Your task to perform on an android device: Open Youtube and go to the subscriptions tab Image 0: 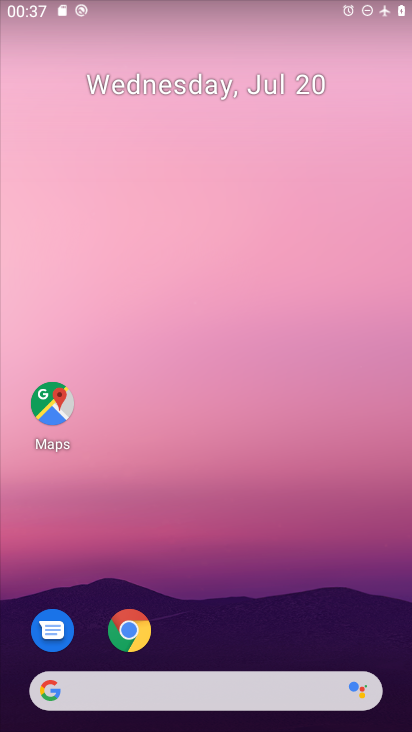
Step 0: drag from (199, 637) to (177, 146)
Your task to perform on an android device: Open Youtube and go to the subscriptions tab Image 1: 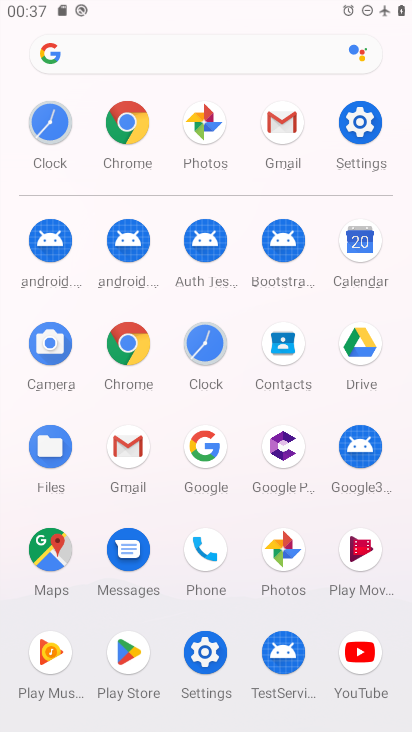
Step 1: click (346, 638)
Your task to perform on an android device: Open Youtube and go to the subscriptions tab Image 2: 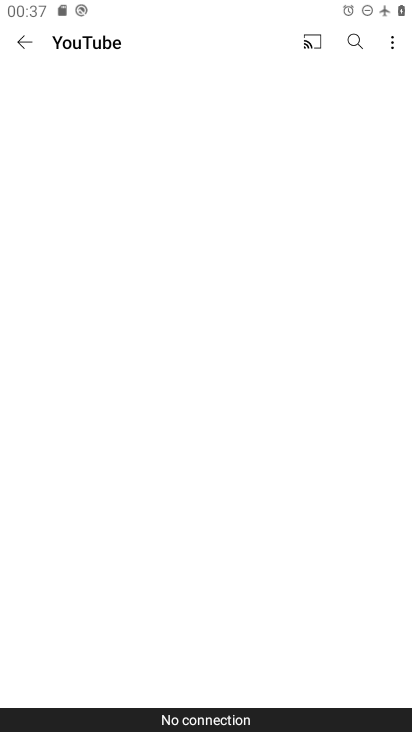
Step 2: click (18, 51)
Your task to perform on an android device: Open Youtube and go to the subscriptions tab Image 3: 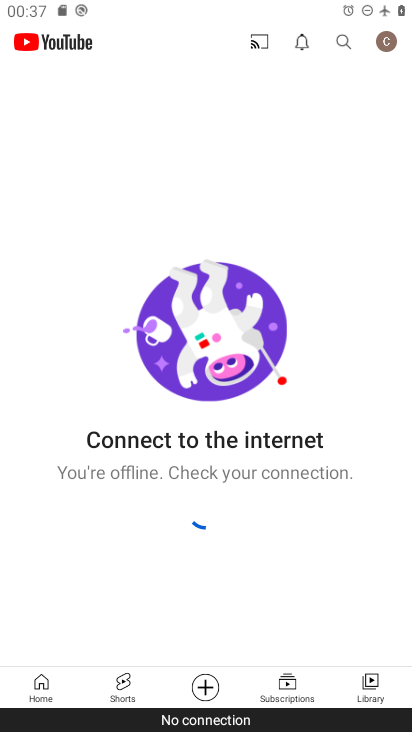
Step 3: click (282, 691)
Your task to perform on an android device: Open Youtube and go to the subscriptions tab Image 4: 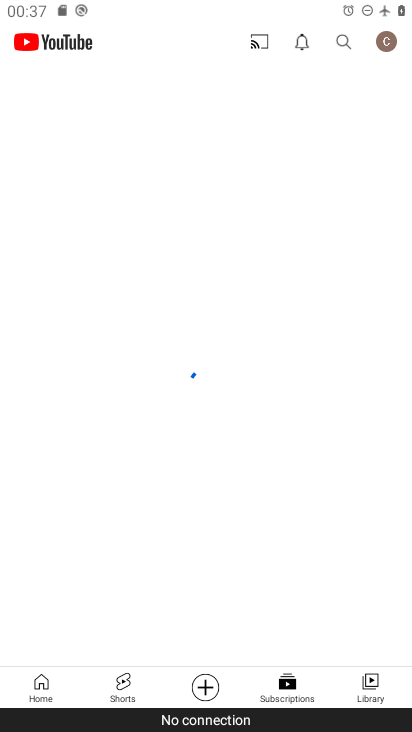
Step 4: task complete